Your task to perform on an android device: Go to calendar. Show me events next week Image 0: 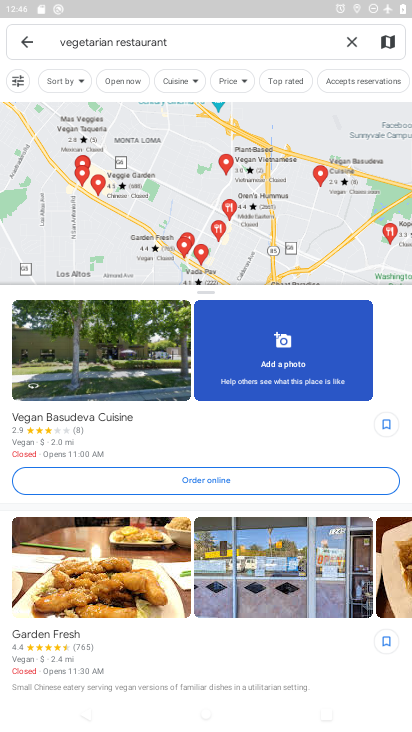
Step 0: press home button
Your task to perform on an android device: Go to calendar. Show me events next week Image 1: 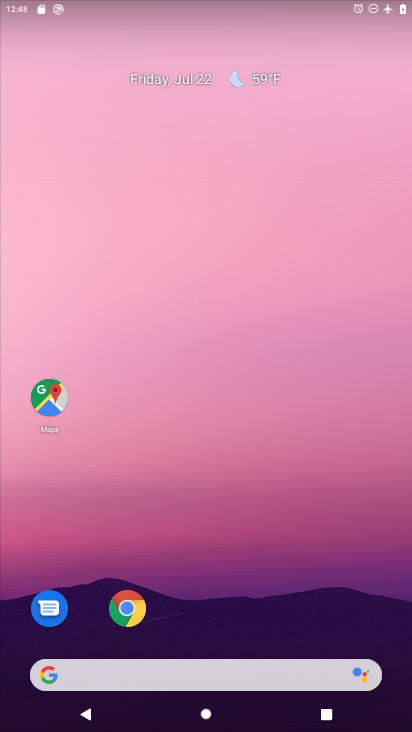
Step 1: drag from (282, 433) to (163, 0)
Your task to perform on an android device: Go to calendar. Show me events next week Image 2: 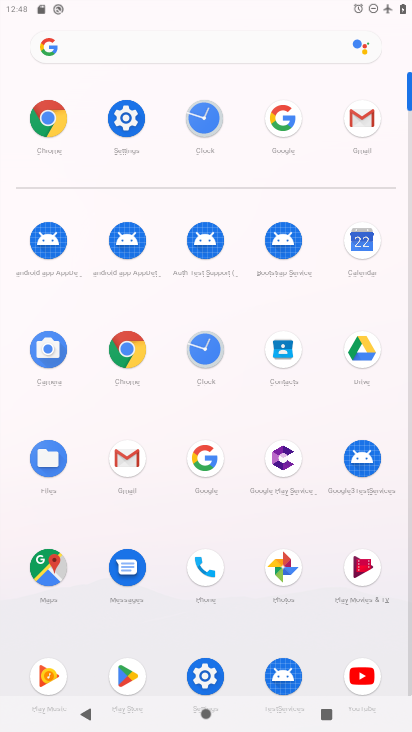
Step 2: click (377, 236)
Your task to perform on an android device: Go to calendar. Show me events next week Image 3: 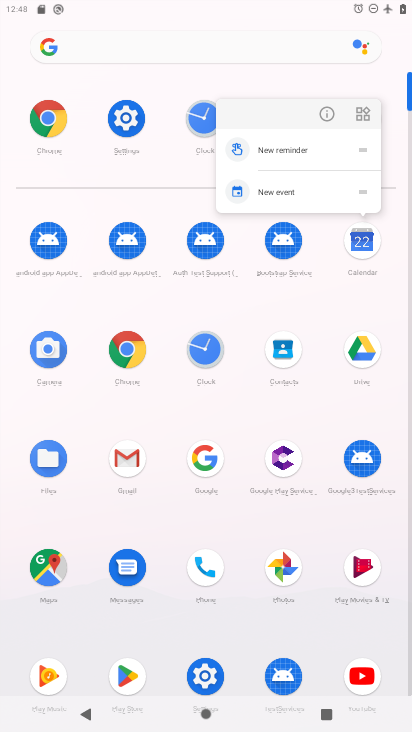
Step 3: click (356, 231)
Your task to perform on an android device: Go to calendar. Show me events next week Image 4: 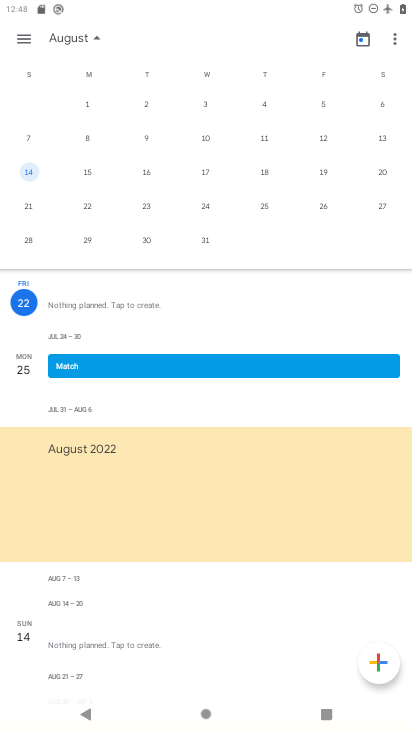
Step 4: task complete